Your task to perform on an android device: delete browsing data in the chrome app Image 0: 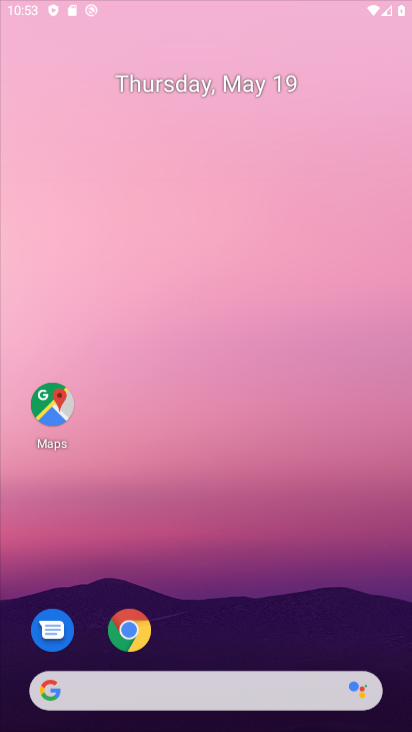
Step 0: press home button
Your task to perform on an android device: delete browsing data in the chrome app Image 1: 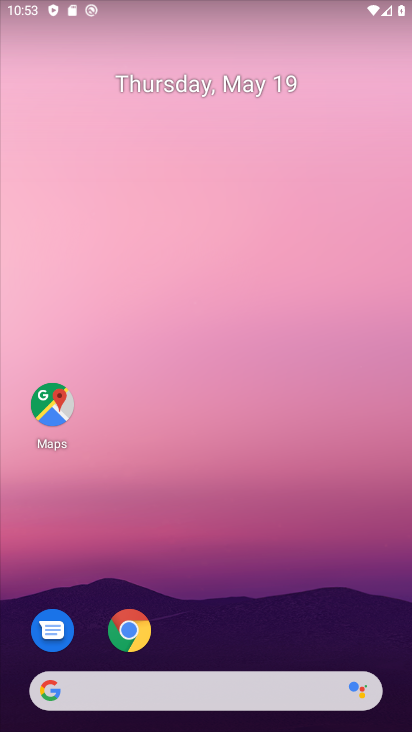
Step 1: click (128, 629)
Your task to perform on an android device: delete browsing data in the chrome app Image 2: 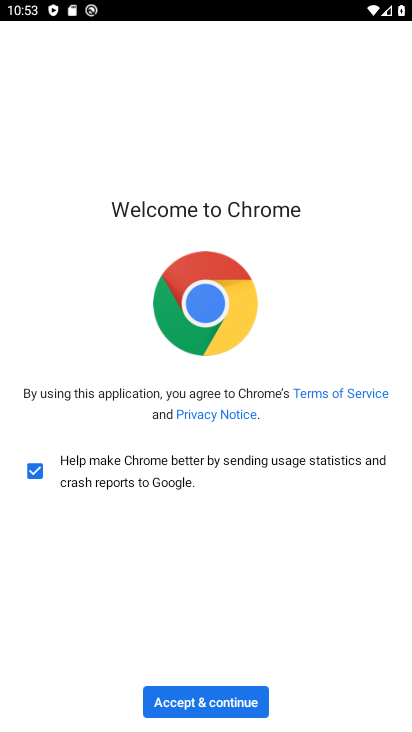
Step 2: click (179, 701)
Your task to perform on an android device: delete browsing data in the chrome app Image 3: 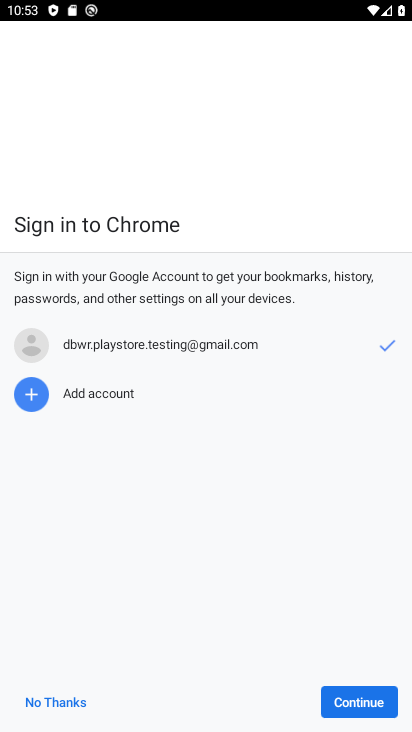
Step 3: click (348, 703)
Your task to perform on an android device: delete browsing data in the chrome app Image 4: 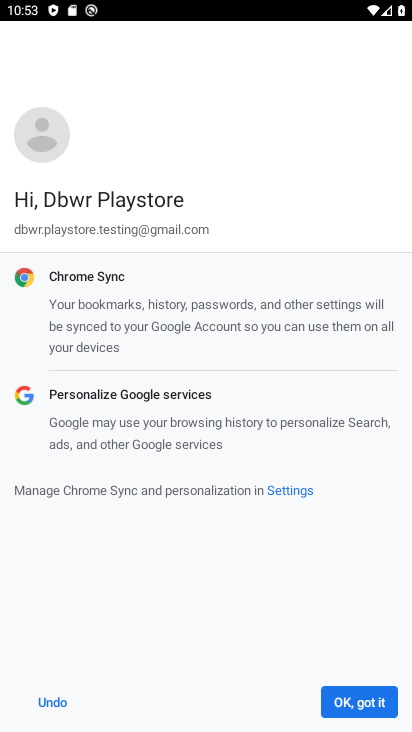
Step 4: click (348, 703)
Your task to perform on an android device: delete browsing data in the chrome app Image 5: 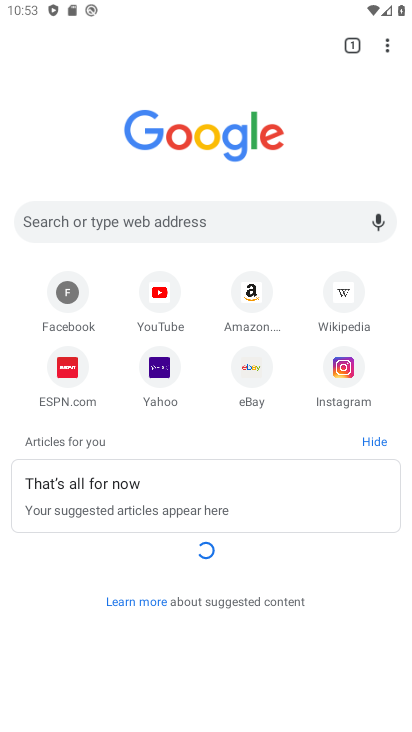
Step 5: click (387, 45)
Your task to perform on an android device: delete browsing data in the chrome app Image 6: 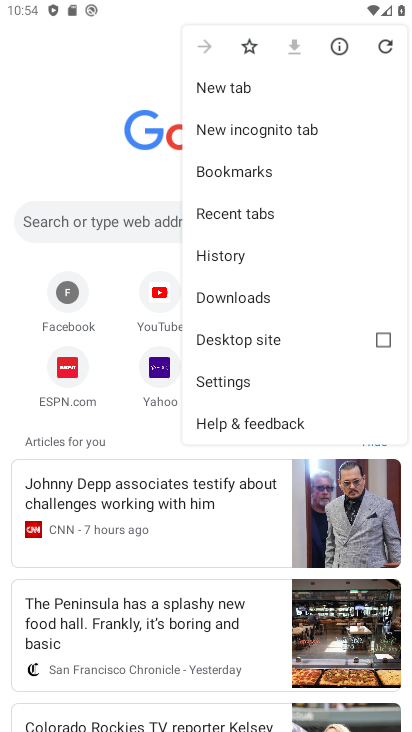
Step 6: click (225, 381)
Your task to perform on an android device: delete browsing data in the chrome app Image 7: 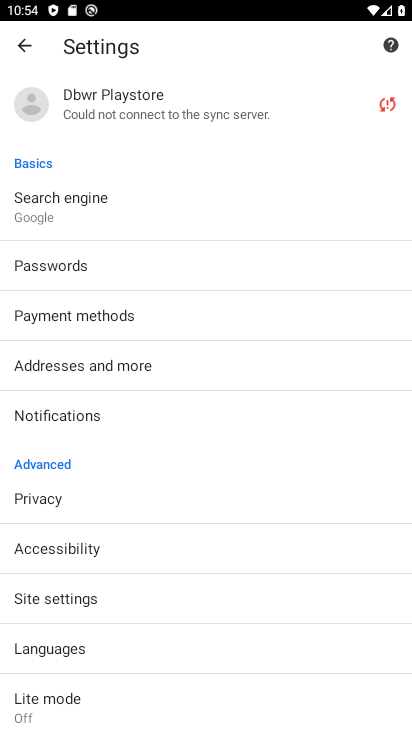
Step 7: click (50, 493)
Your task to perform on an android device: delete browsing data in the chrome app Image 8: 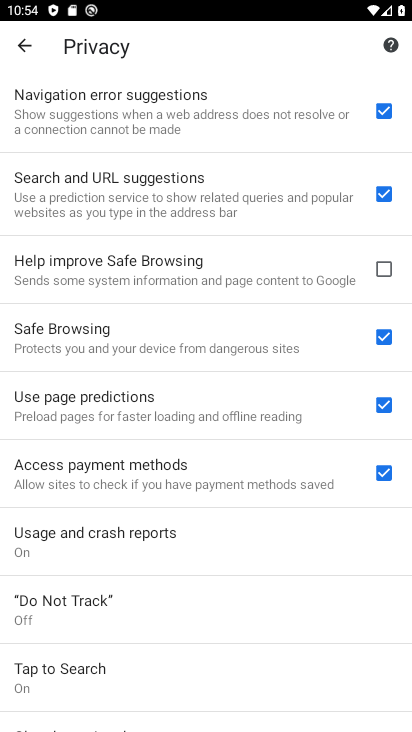
Step 8: drag from (115, 567) to (148, 490)
Your task to perform on an android device: delete browsing data in the chrome app Image 9: 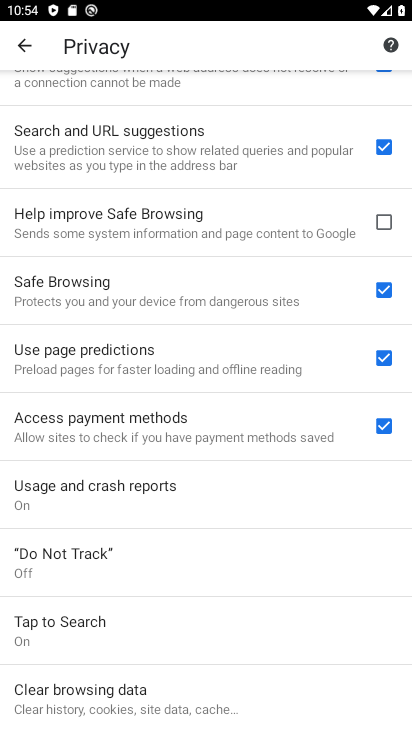
Step 9: drag from (105, 582) to (142, 493)
Your task to perform on an android device: delete browsing data in the chrome app Image 10: 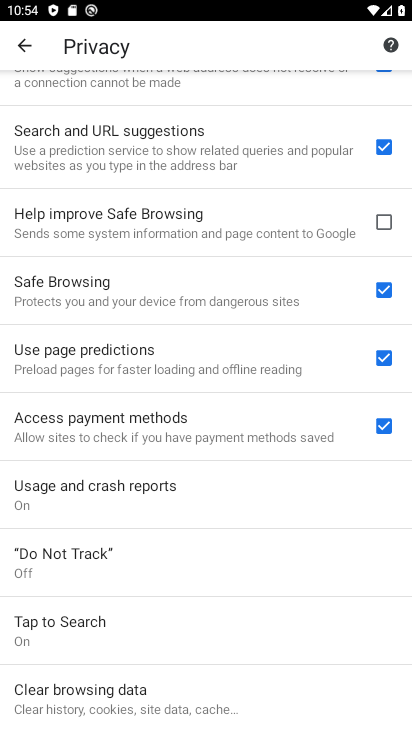
Step 10: click (71, 697)
Your task to perform on an android device: delete browsing data in the chrome app Image 11: 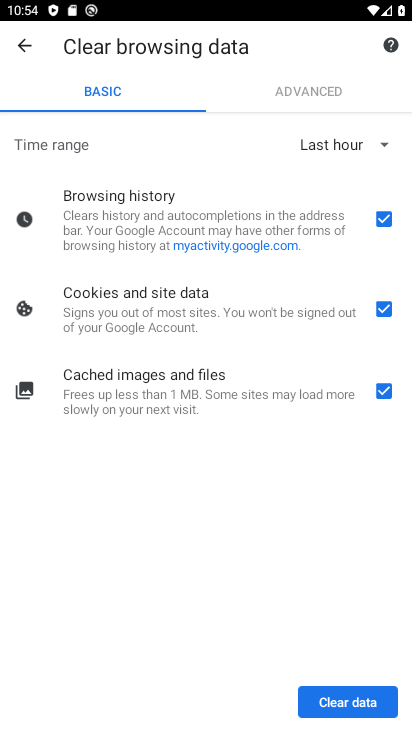
Step 11: click (375, 137)
Your task to perform on an android device: delete browsing data in the chrome app Image 12: 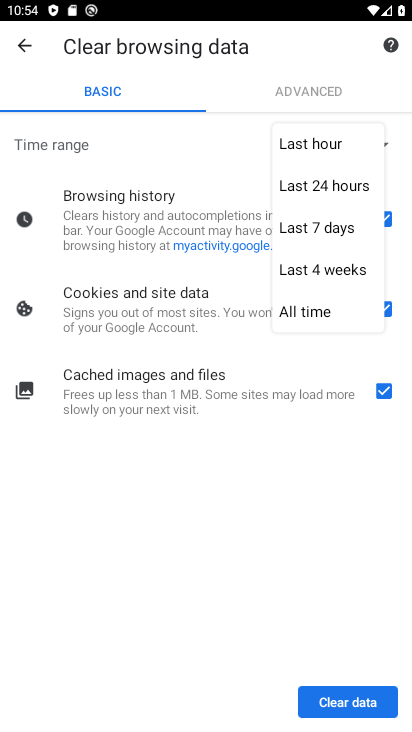
Step 12: click (312, 308)
Your task to perform on an android device: delete browsing data in the chrome app Image 13: 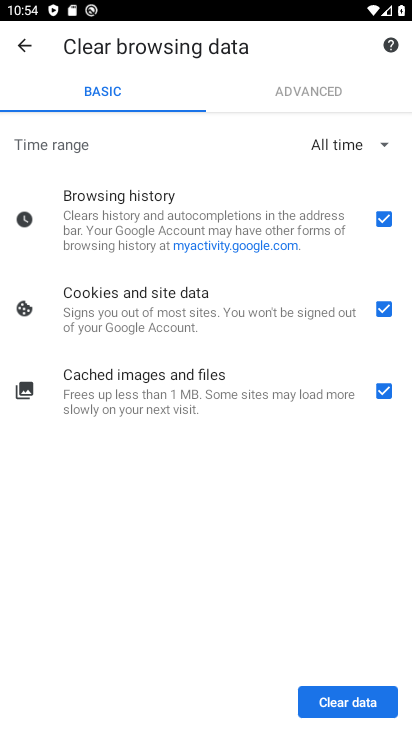
Step 13: click (348, 693)
Your task to perform on an android device: delete browsing data in the chrome app Image 14: 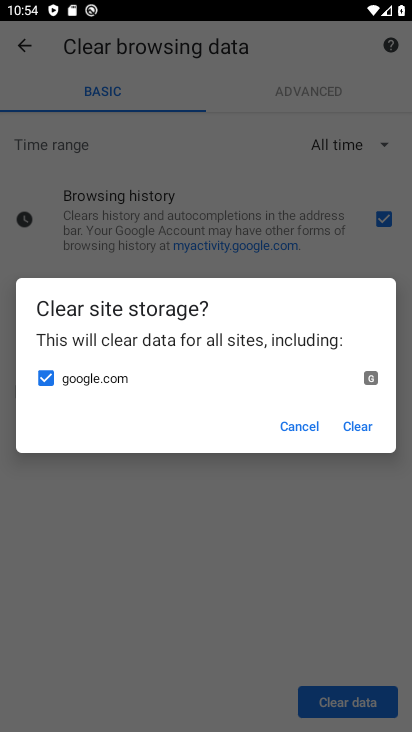
Step 14: click (364, 430)
Your task to perform on an android device: delete browsing data in the chrome app Image 15: 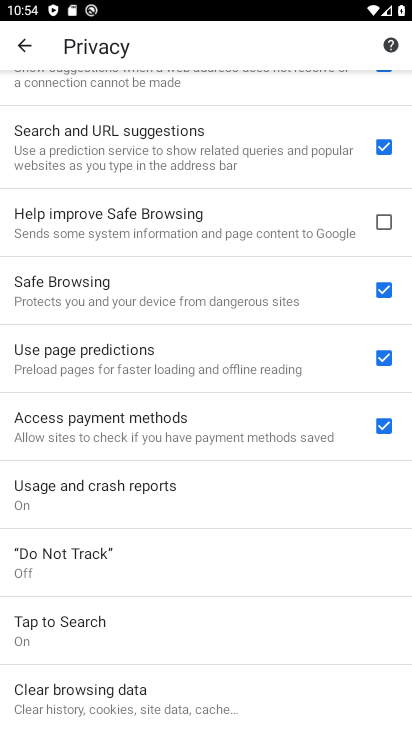
Step 15: task complete